Your task to perform on an android device: make emails show in primary in the gmail app Image 0: 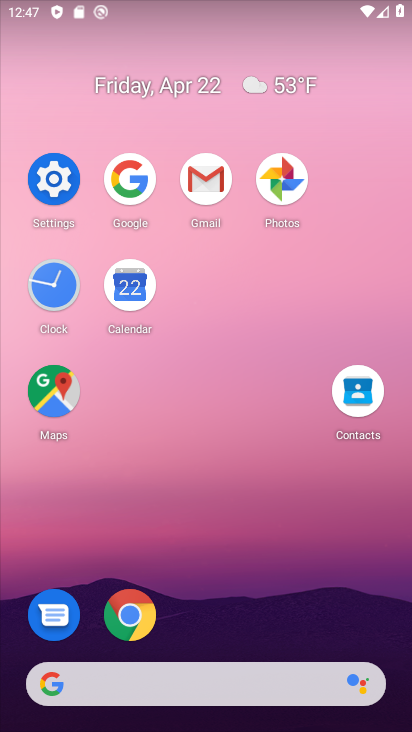
Step 0: click (217, 188)
Your task to perform on an android device: make emails show in primary in the gmail app Image 1: 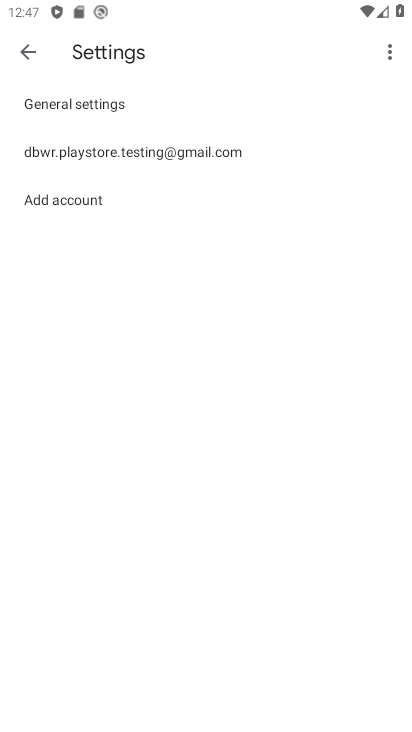
Step 1: click (186, 156)
Your task to perform on an android device: make emails show in primary in the gmail app Image 2: 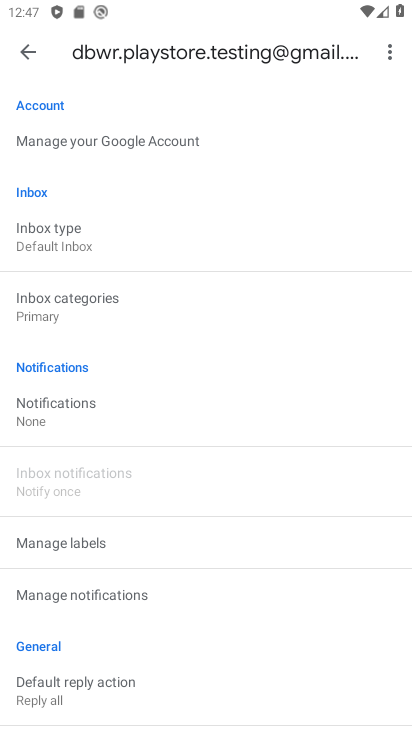
Step 2: task complete